Your task to perform on an android device: Do I have any events today? Image 0: 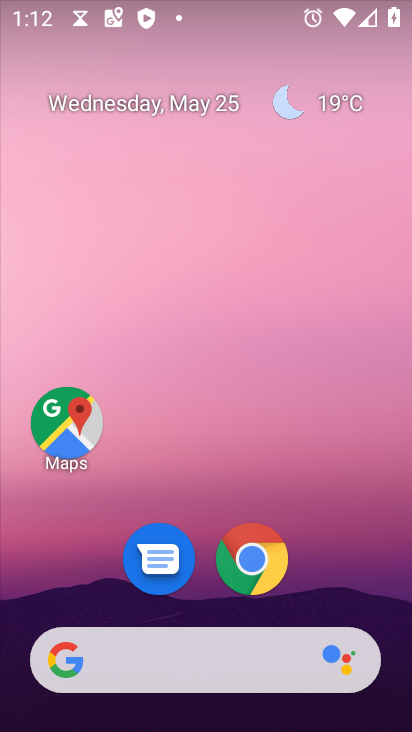
Step 0: drag from (355, 580) to (377, 0)
Your task to perform on an android device: Do I have any events today? Image 1: 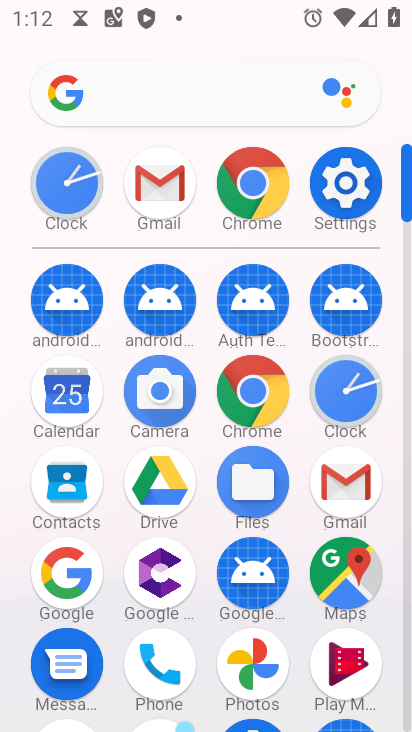
Step 1: click (64, 395)
Your task to perform on an android device: Do I have any events today? Image 2: 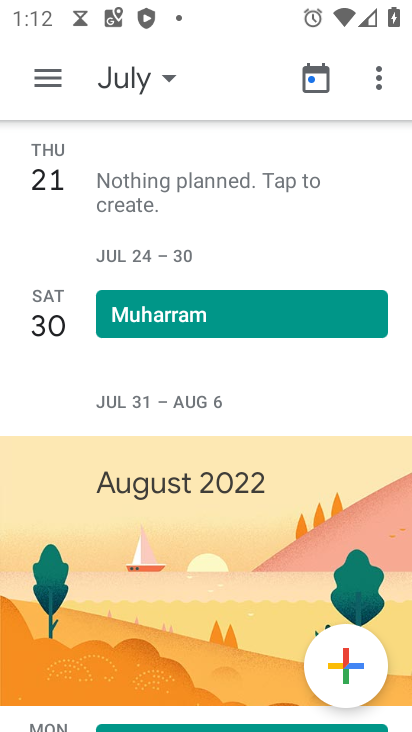
Step 2: click (164, 64)
Your task to perform on an android device: Do I have any events today? Image 3: 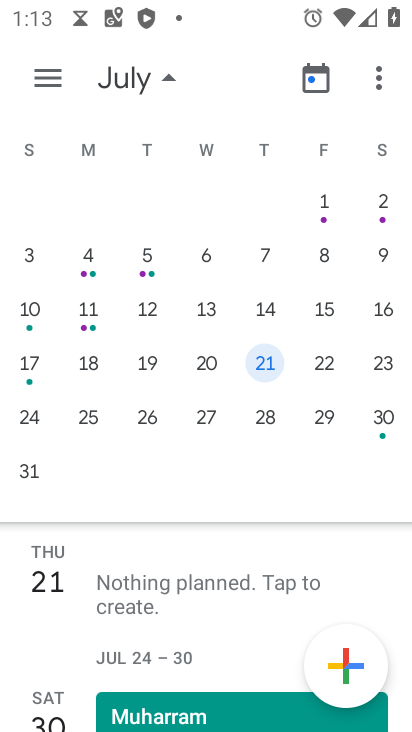
Step 3: task complete